Your task to perform on an android device: Open my contact list Image 0: 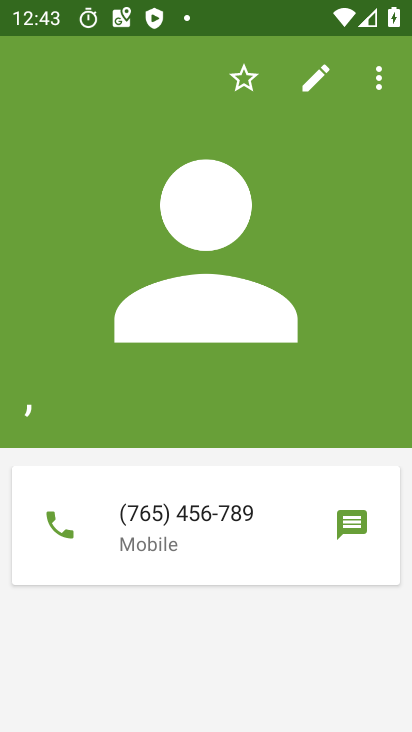
Step 0: press home button
Your task to perform on an android device: Open my contact list Image 1: 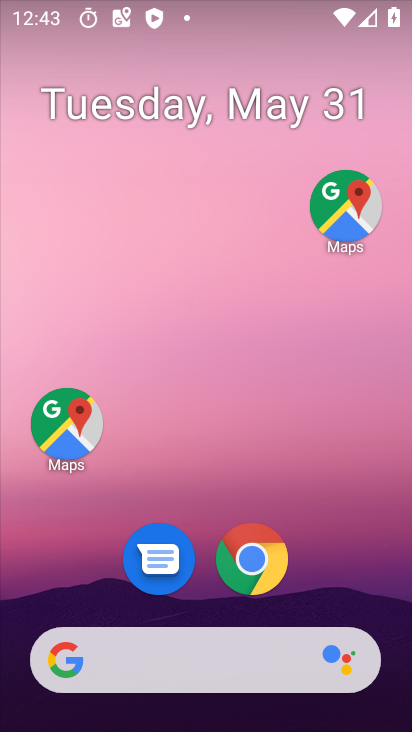
Step 1: drag from (281, 379) to (288, 53)
Your task to perform on an android device: Open my contact list Image 2: 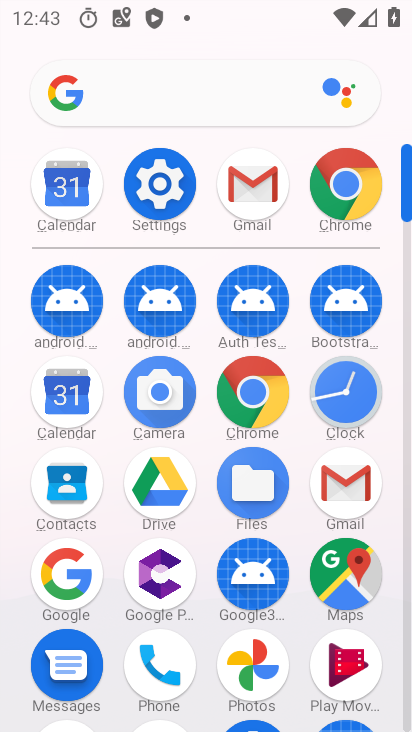
Step 2: click (80, 485)
Your task to perform on an android device: Open my contact list Image 3: 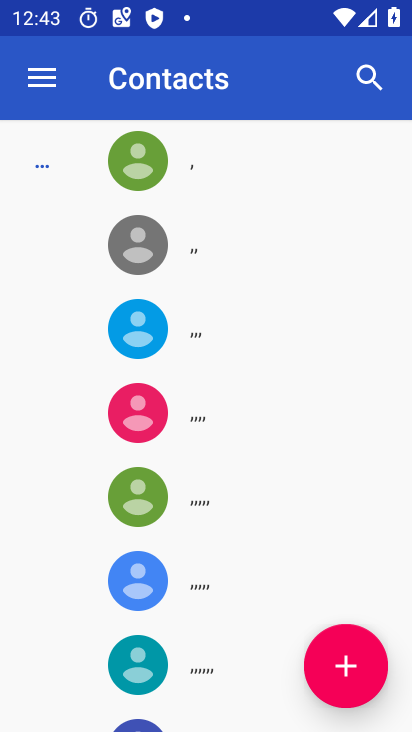
Step 3: task complete